Your task to perform on an android device: turn on location history Image 0: 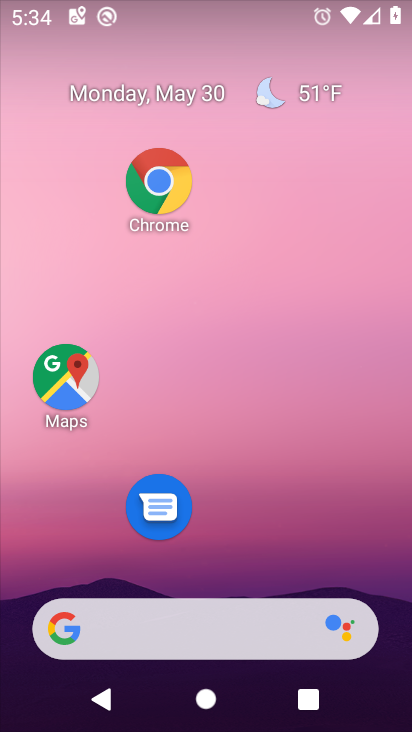
Step 0: click (110, 366)
Your task to perform on an android device: turn on location history Image 1: 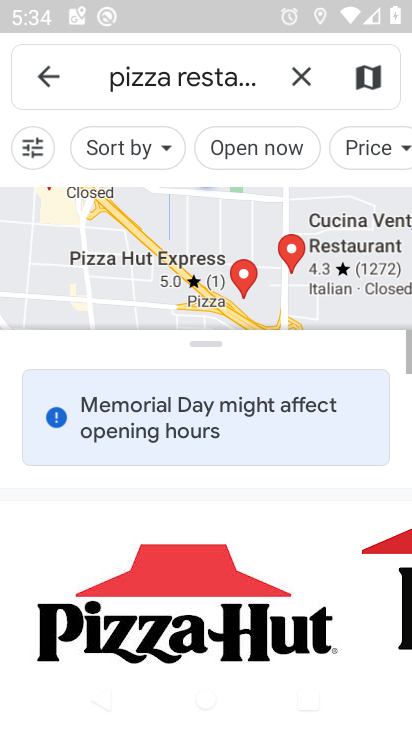
Step 1: click (44, 87)
Your task to perform on an android device: turn on location history Image 2: 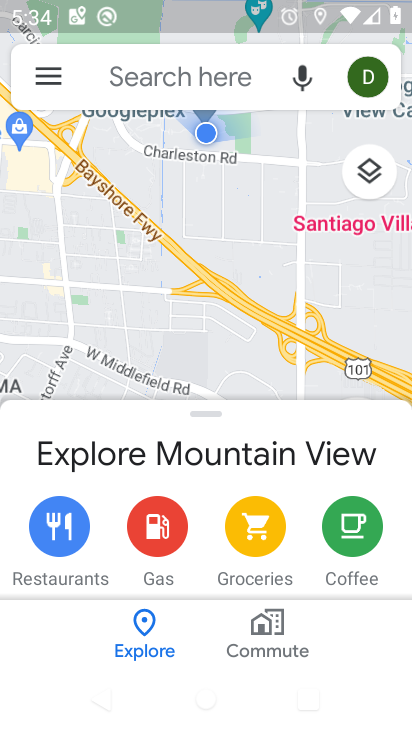
Step 2: click (44, 87)
Your task to perform on an android device: turn on location history Image 3: 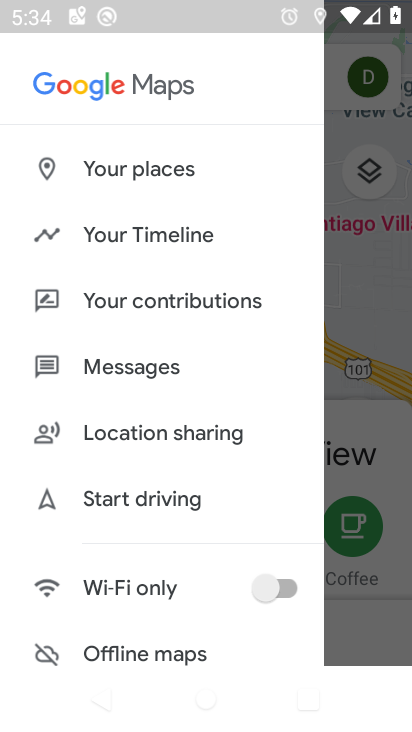
Step 3: click (151, 245)
Your task to perform on an android device: turn on location history Image 4: 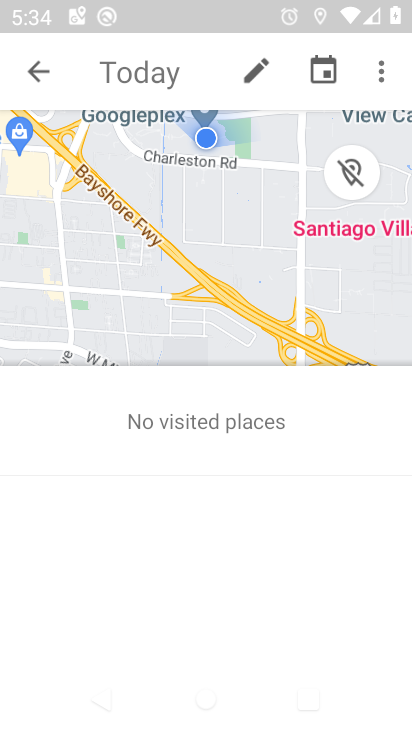
Step 4: click (376, 87)
Your task to perform on an android device: turn on location history Image 5: 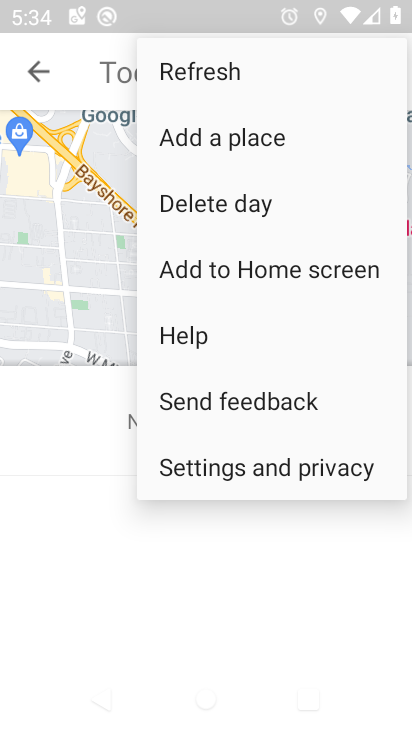
Step 5: click (265, 483)
Your task to perform on an android device: turn on location history Image 6: 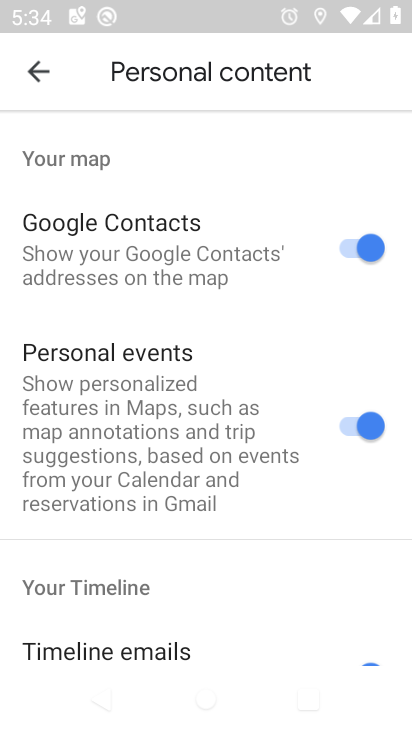
Step 6: drag from (145, 510) to (178, 232)
Your task to perform on an android device: turn on location history Image 7: 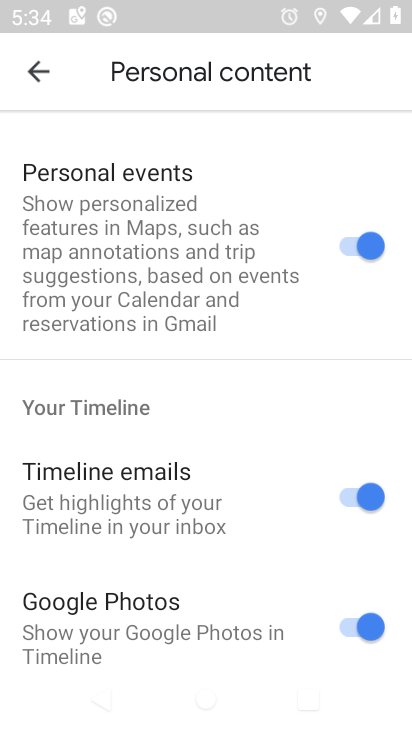
Step 7: drag from (152, 585) to (208, 183)
Your task to perform on an android device: turn on location history Image 8: 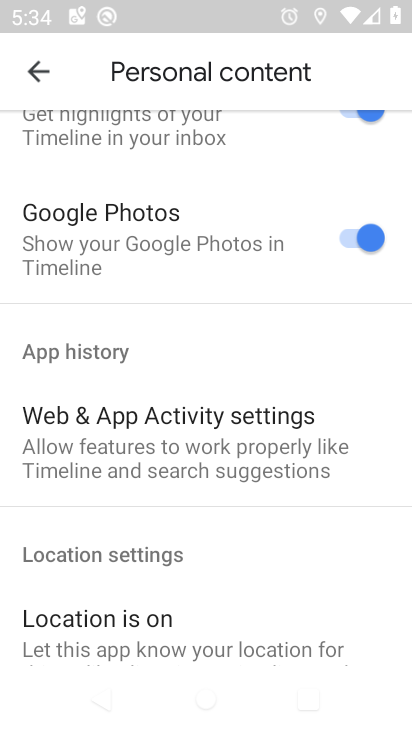
Step 8: drag from (174, 395) to (317, 61)
Your task to perform on an android device: turn on location history Image 9: 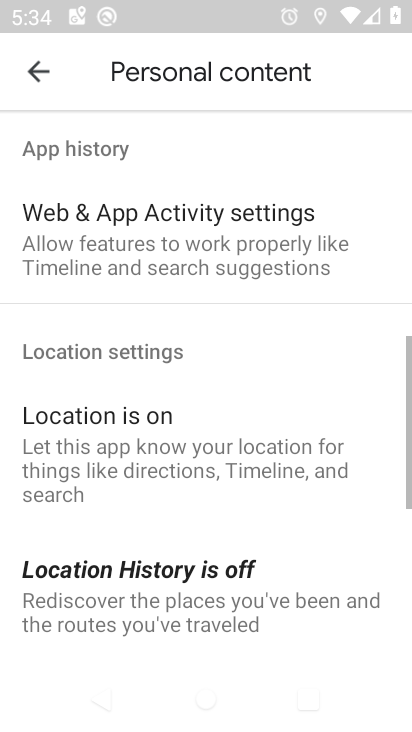
Step 9: drag from (176, 514) to (112, 131)
Your task to perform on an android device: turn on location history Image 10: 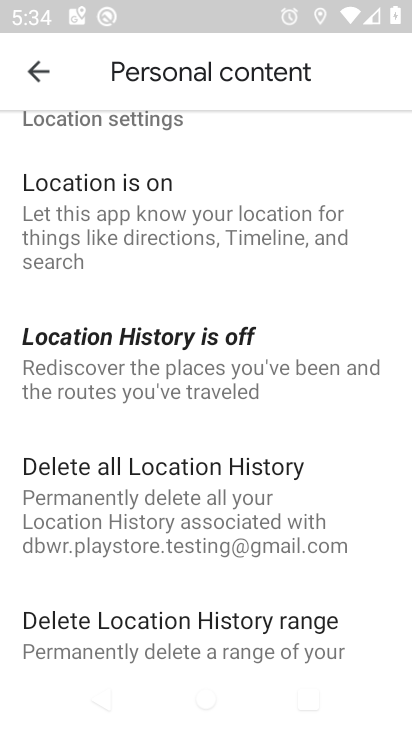
Step 10: click (128, 379)
Your task to perform on an android device: turn on location history Image 11: 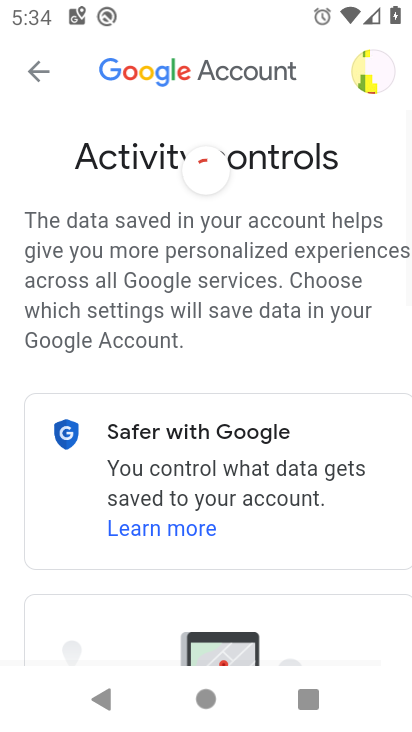
Step 11: task complete